Your task to perform on an android device: uninstall "Adobe Acrobat Reader: Edit PDF" Image 0: 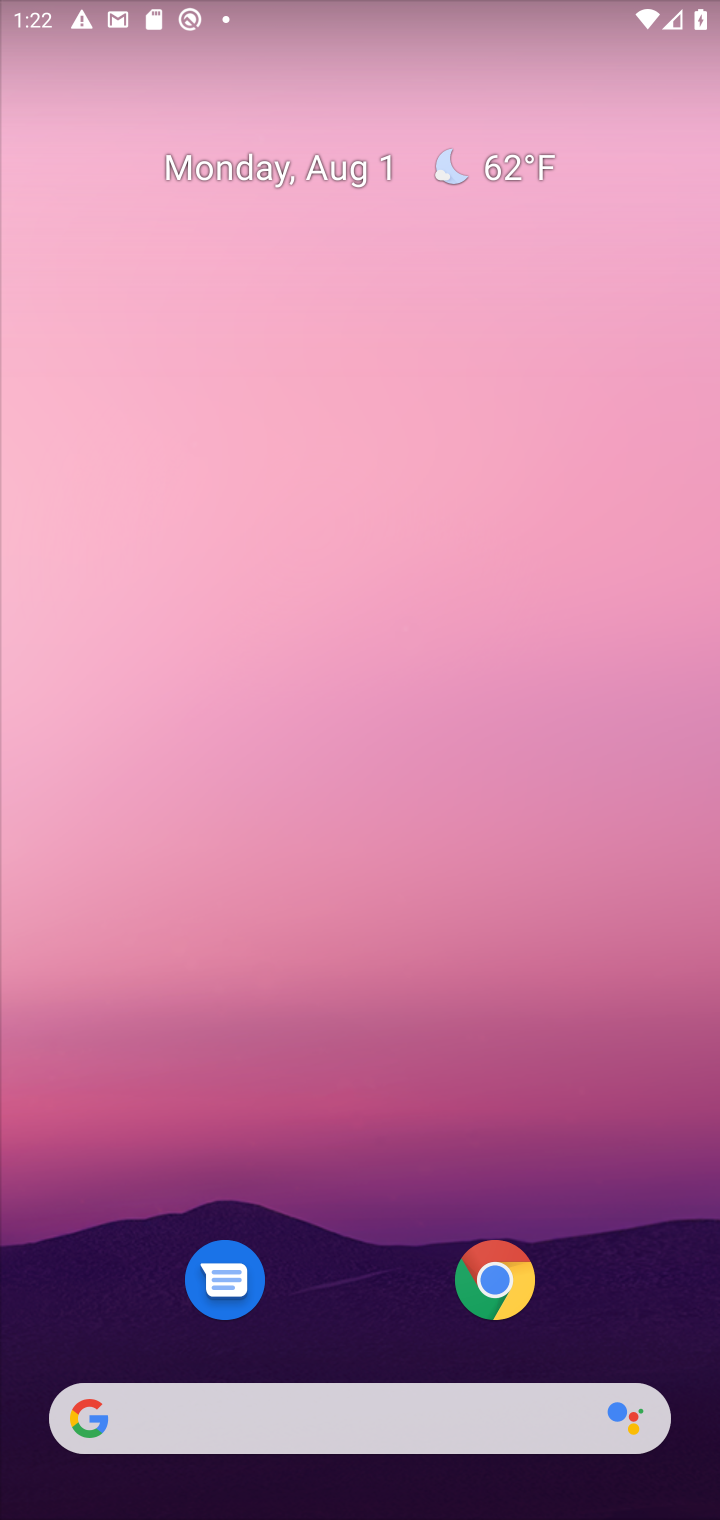
Step 0: drag from (370, 1279) to (562, 11)
Your task to perform on an android device: uninstall "Adobe Acrobat Reader: Edit PDF" Image 1: 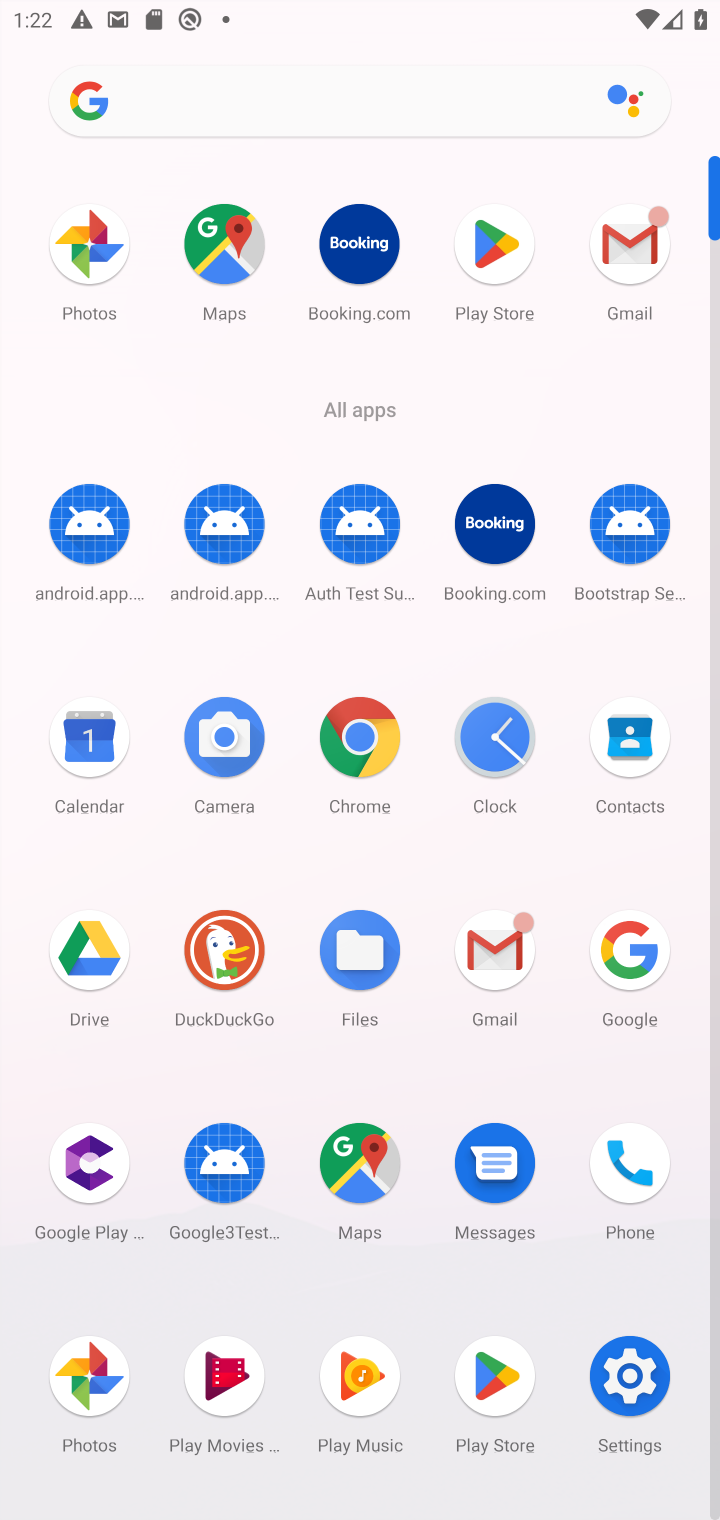
Step 1: click (495, 1375)
Your task to perform on an android device: uninstall "Adobe Acrobat Reader: Edit PDF" Image 2: 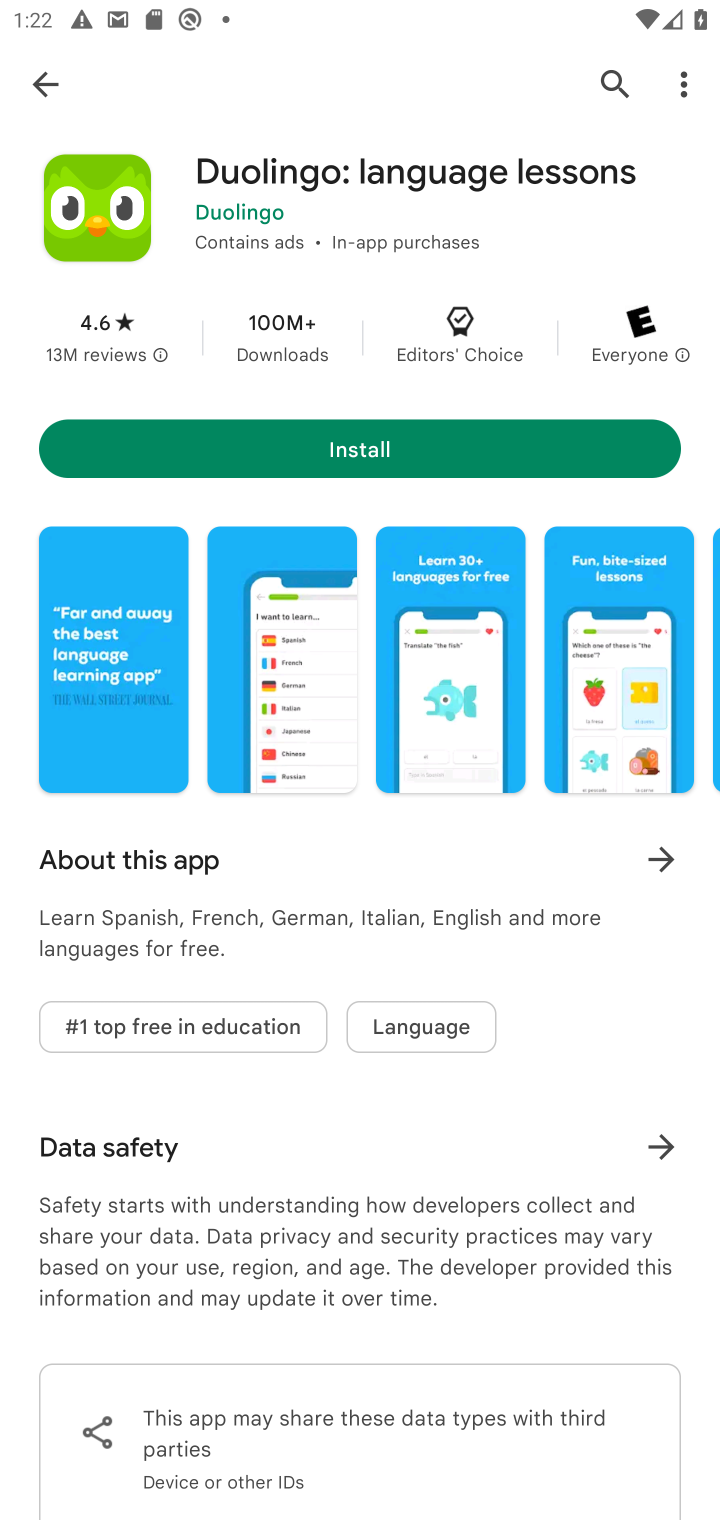
Step 2: click (593, 89)
Your task to perform on an android device: uninstall "Adobe Acrobat Reader: Edit PDF" Image 3: 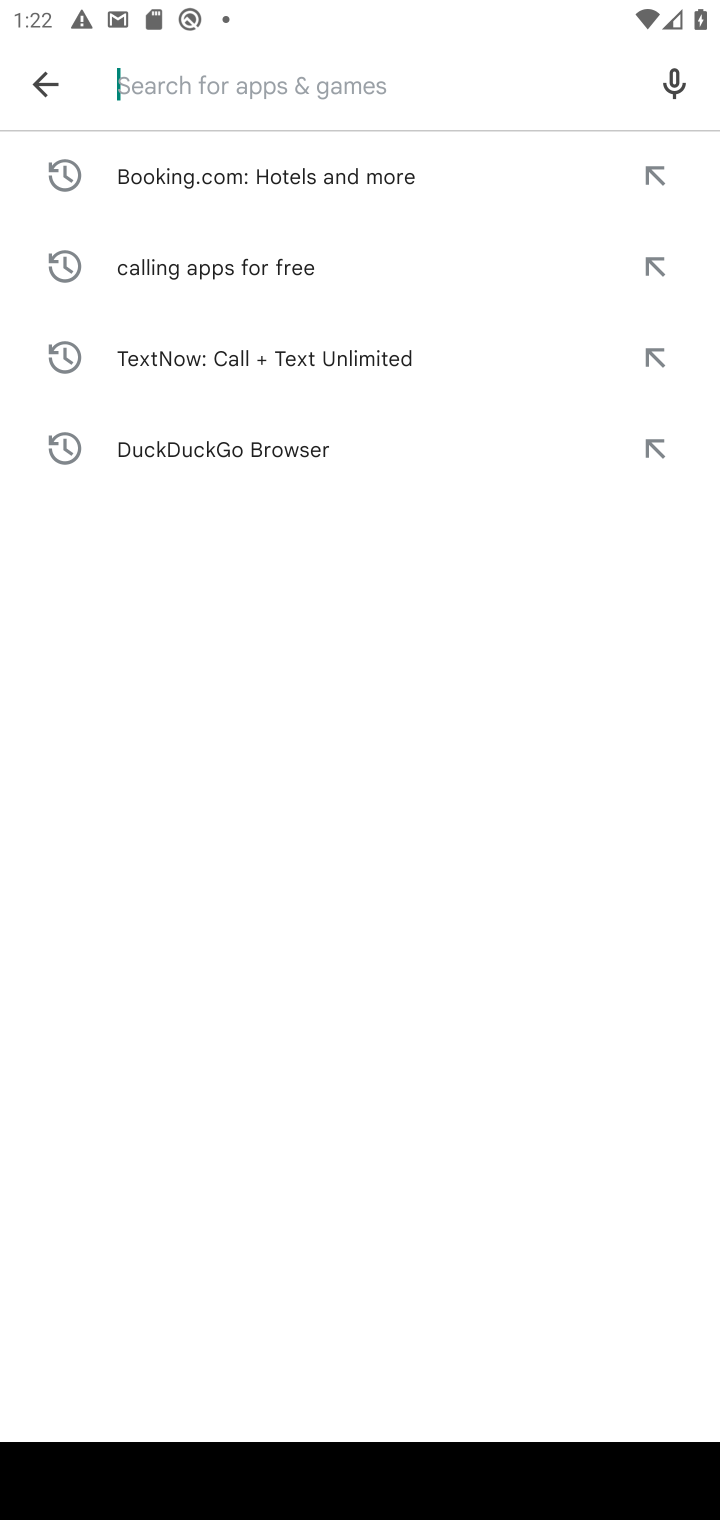
Step 3: type "Adobbe Acrobat Reader: Edit PDF"
Your task to perform on an android device: uninstall "Adobe Acrobat Reader: Edit PDF" Image 4: 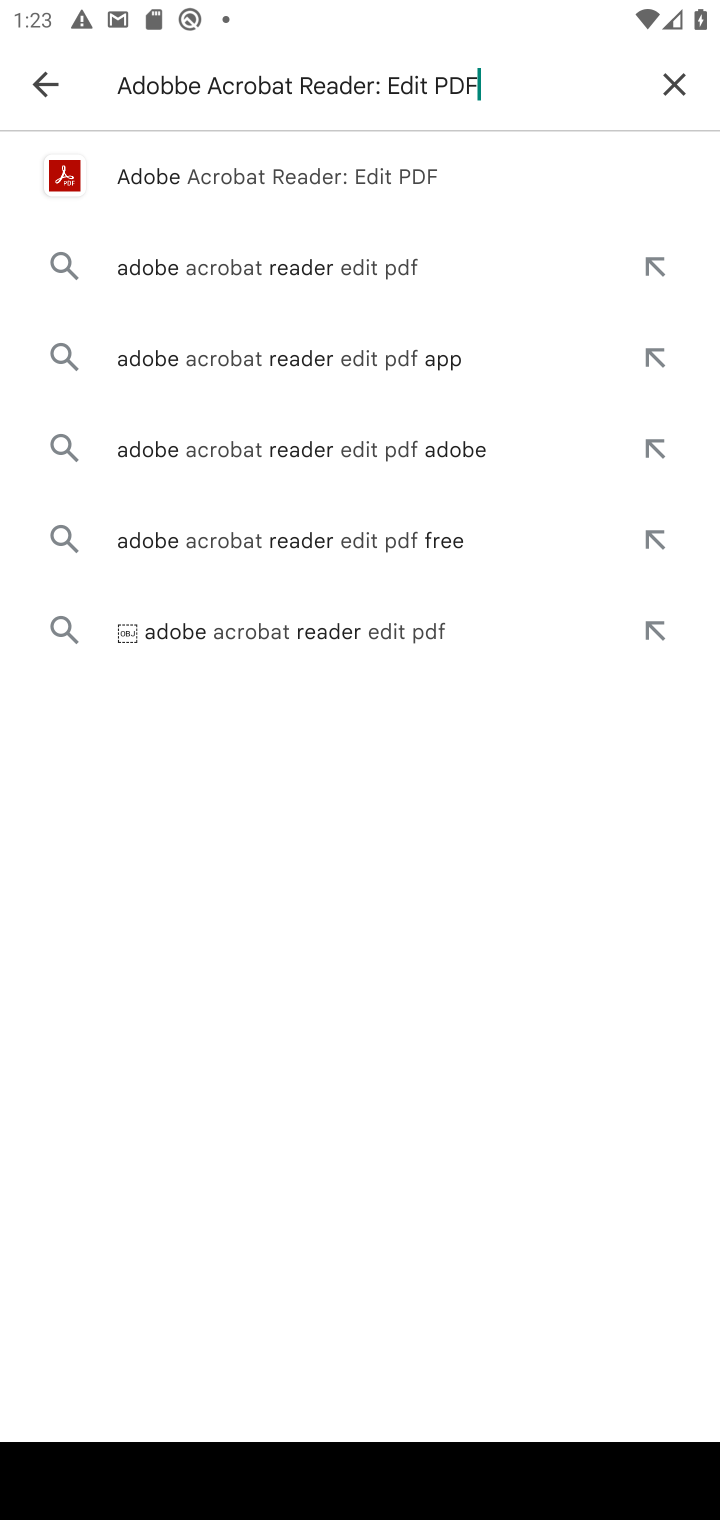
Step 4: press enter
Your task to perform on an android device: uninstall "Adobe Acrobat Reader: Edit PDF" Image 5: 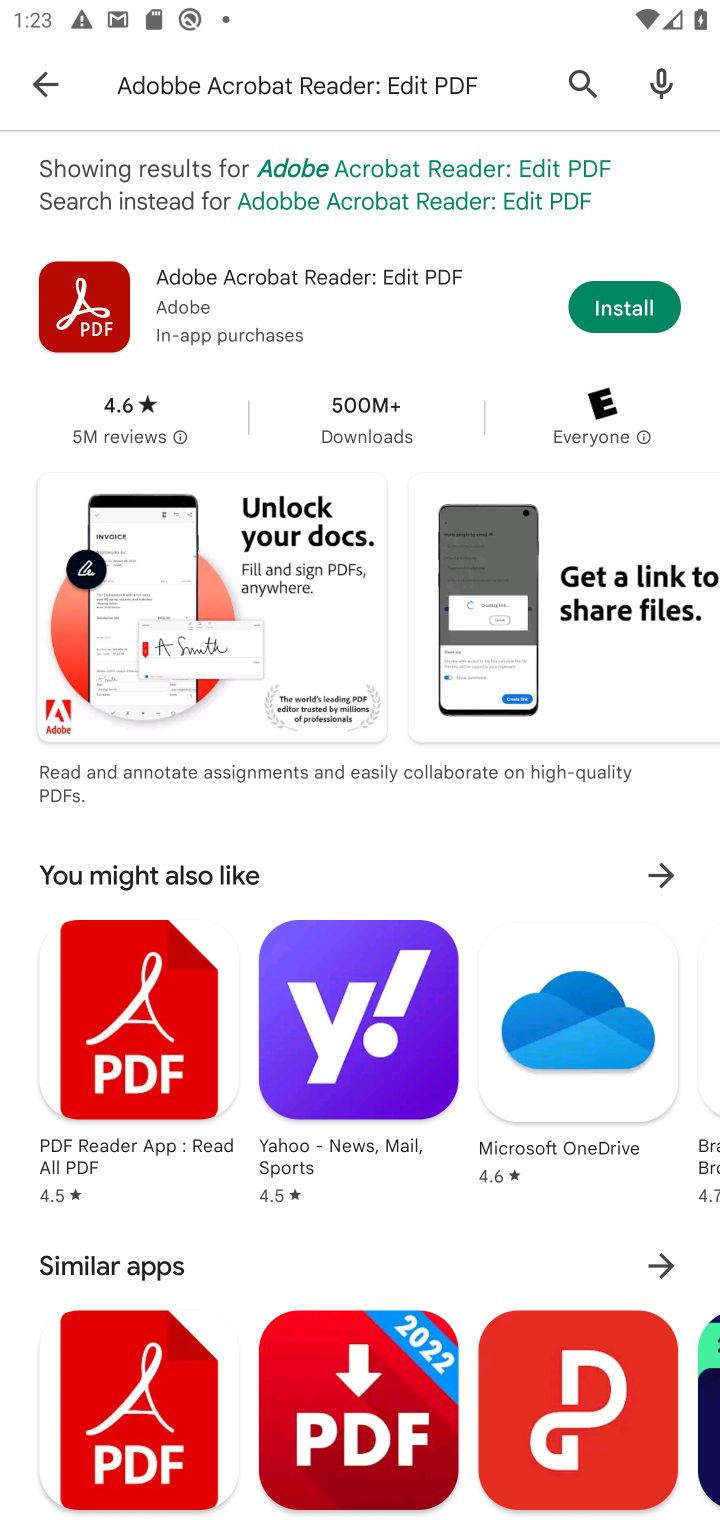
Step 5: task complete